Your task to perform on an android device: Open calendar and show me the fourth week of next month Image 0: 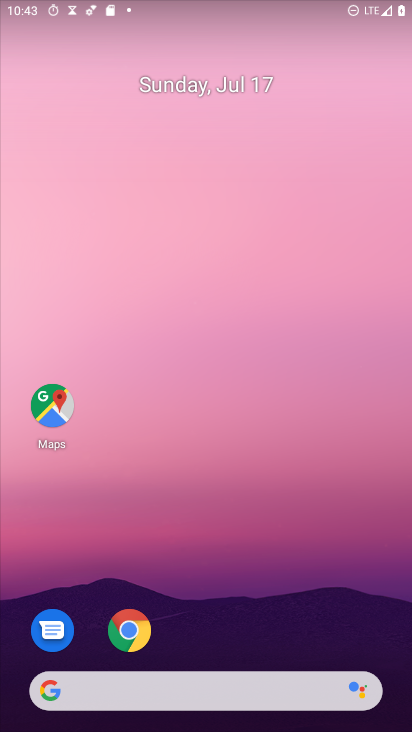
Step 0: drag from (295, 670) to (196, 7)
Your task to perform on an android device: Open calendar and show me the fourth week of next month Image 1: 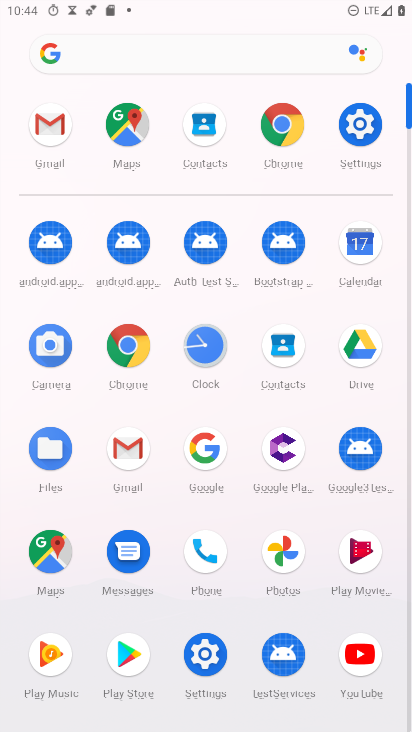
Step 1: click (345, 245)
Your task to perform on an android device: Open calendar and show me the fourth week of next month Image 2: 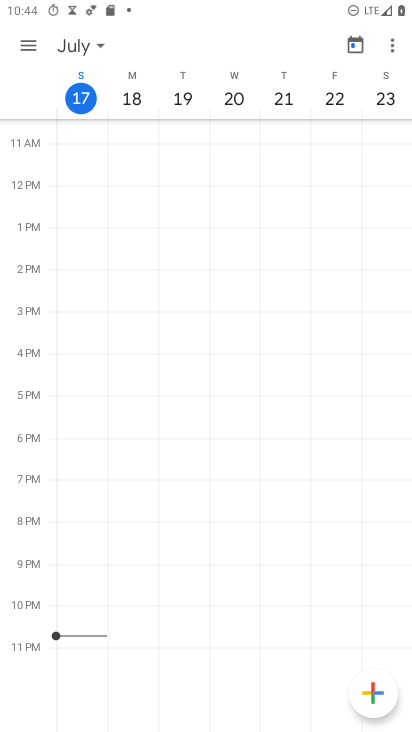
Step 2: click (102, 39)
Your task to perform on an android device: Open calendar and show me the fourth week of next month Image 3: 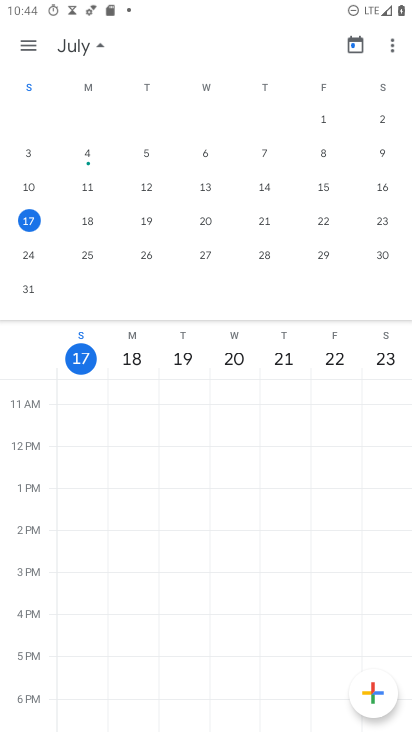
Step 3: drag from (364, 208) to (39, 251)
Your task to perform on an android device: Open calendar and show me the fourth week of next month Image 4: 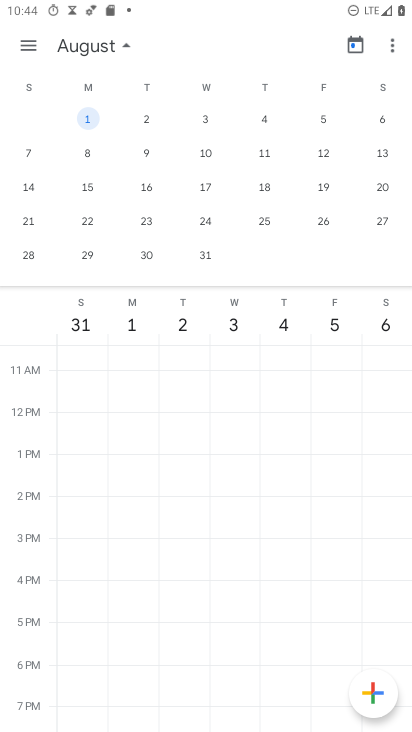
Step 4: click (265, 220)
Your task to perform on an android device: Open calendar and show me the fourth week of next month Image 5: 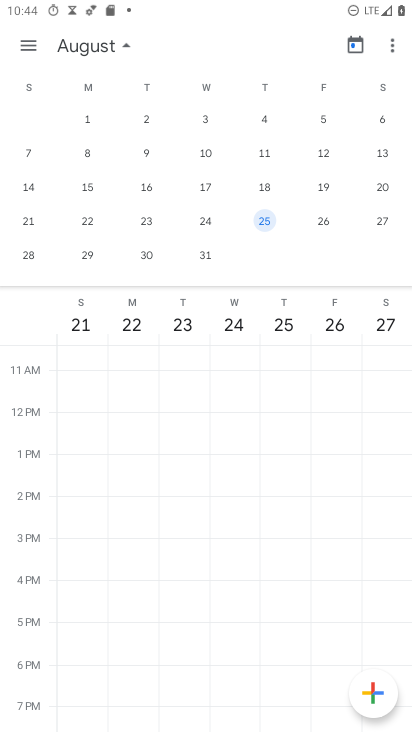
Step 5: task complete